Your task to perform on an android device: toggle wifi Image 0: 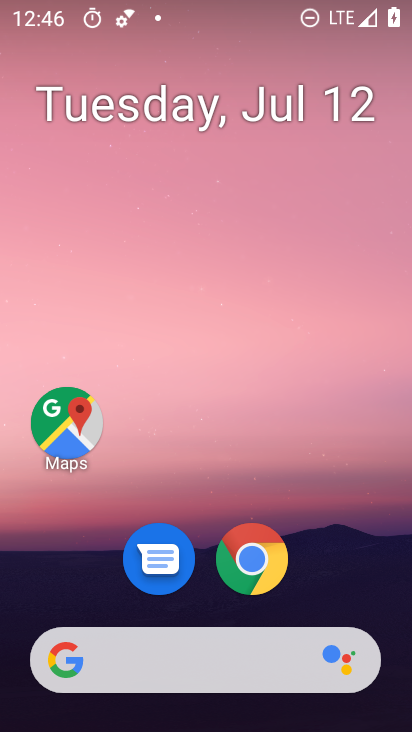
Step 0: drag from (164, 11) to (186, 635)
Your task to perform on an android device: toggle wifi Image 1: 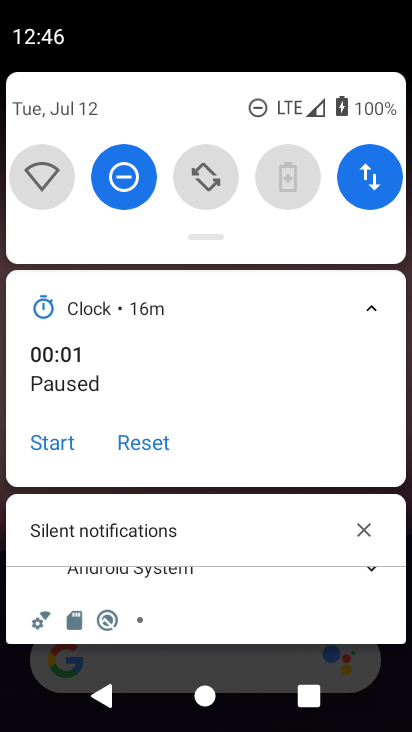
Step 1: click (40, 184)
Your task to perform on an android device: toggle wifi Image 2: 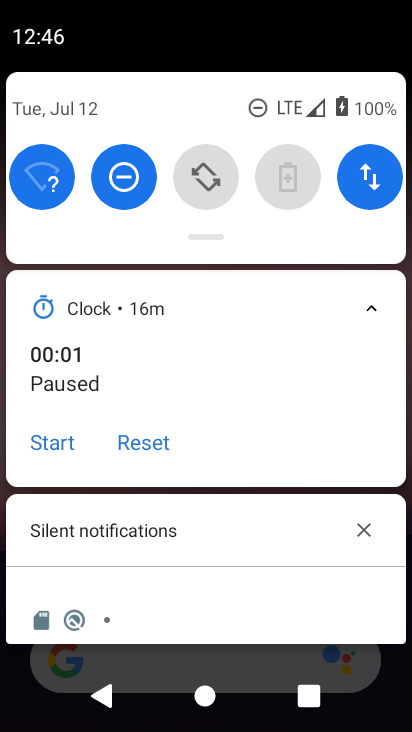
Step 2: task complete